Your task to perform on an android device: toggle translation in the chrome app Image 0: 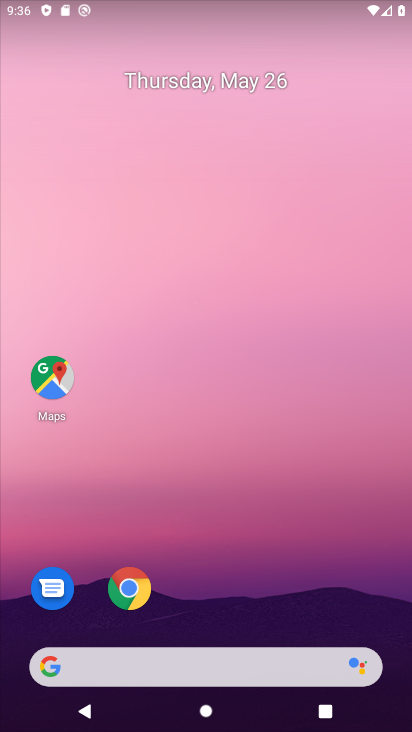
Step 0: drag from (239, 728) to (227, 189)
Your task to perform on an android device: toggle translation in the chrome app Image 1: 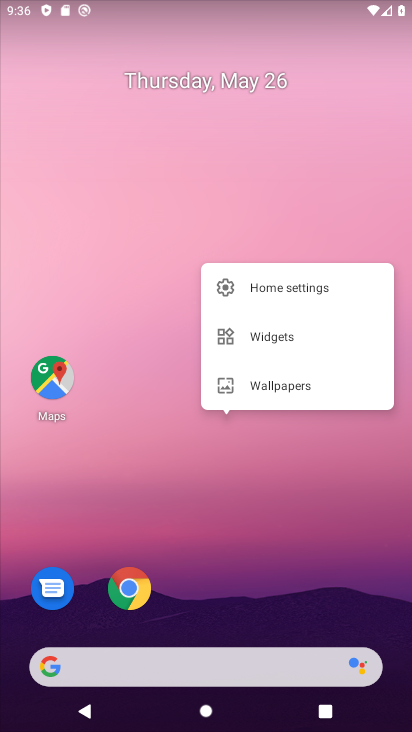
Step 1: click (233, 493)
Your task to perform on an android device: toggle translation in the chrome app Image 2: 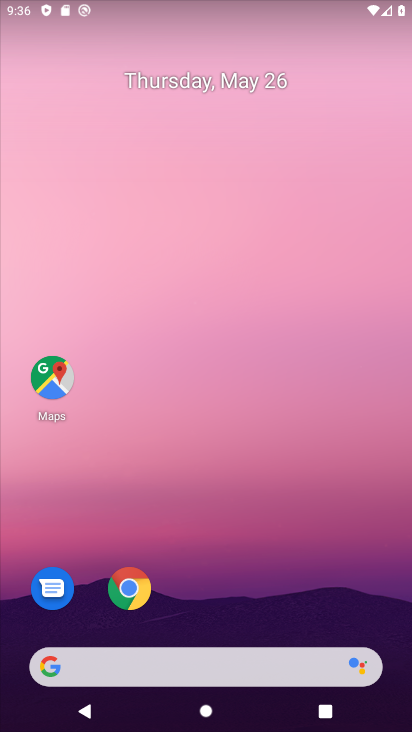
Step 2: click (129, 591)
Your task to perform on an android device: toggle translation in the chrome app Image 3: 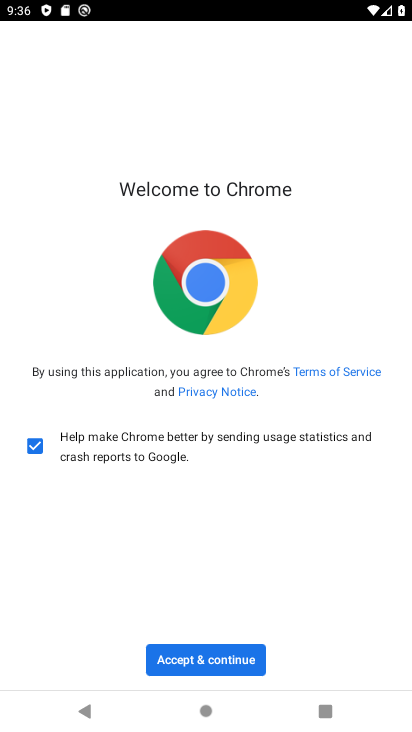
Step 3: click (179, 656)
Your task to perform on an android device: toggle translation in the chrome app Image 4: 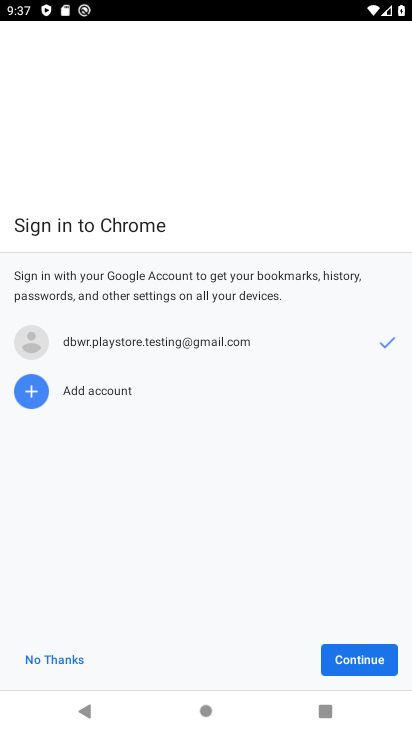
Step 4: click (368, 654)
Your task to perform on an android device: toggle translation in the chrome app Image 5: 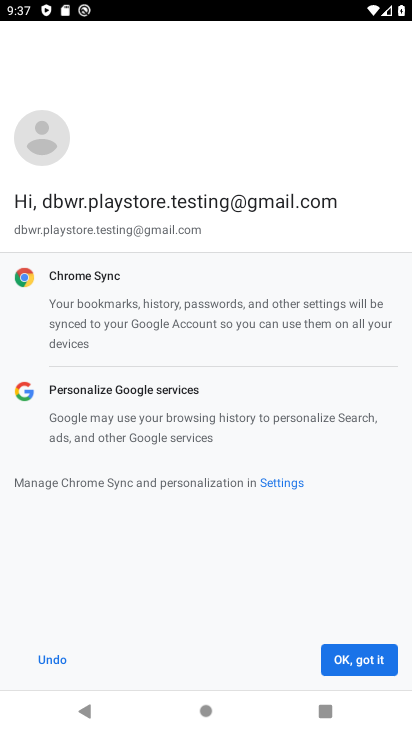
Step 5: click (338, 662)
Your task to perform on an android device: toggle translation in the chrome app Image 6: 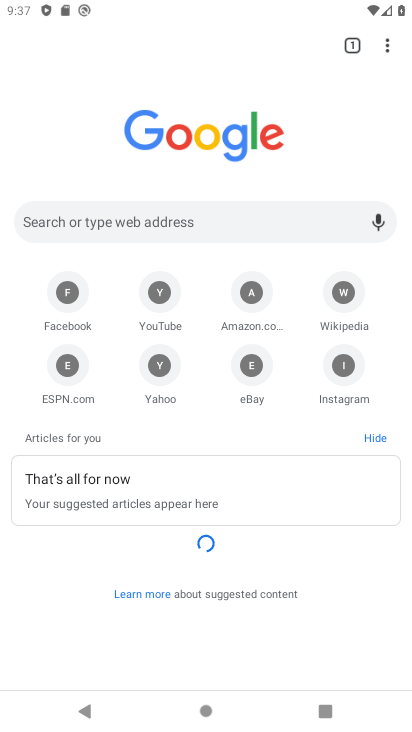
Step 6: click (388, 50)
Your task to perform on an android device: toggle translation in the chrome app Image 7: 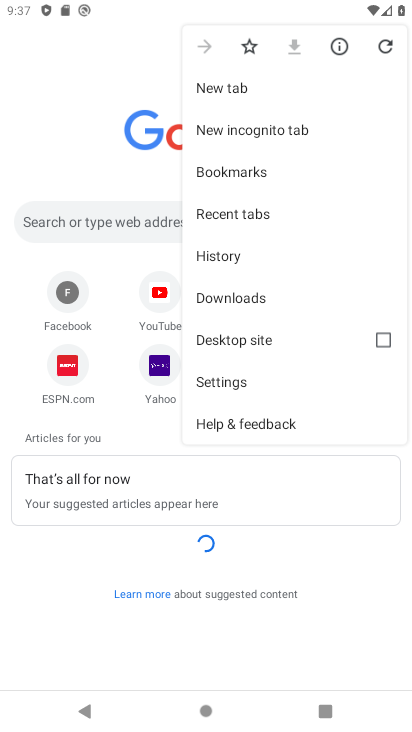
Step 7: click (226, 379)
Your task to perform on an android device: toggle translation in the chrome app Image 8: 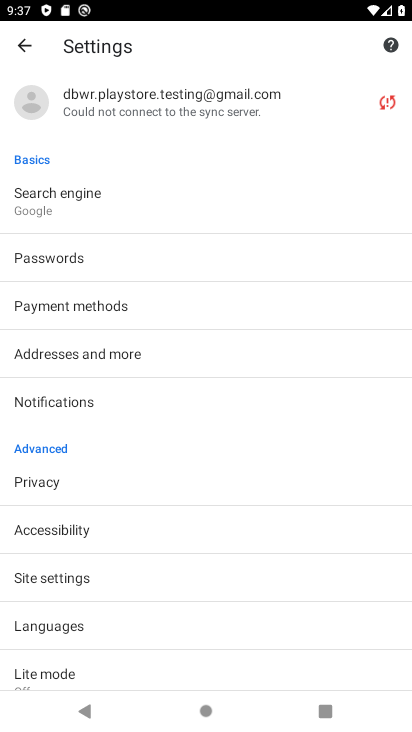
Step 8: click (43, 621)
Your task to perform on an android device: toggle translation in the chrome app Image 9: 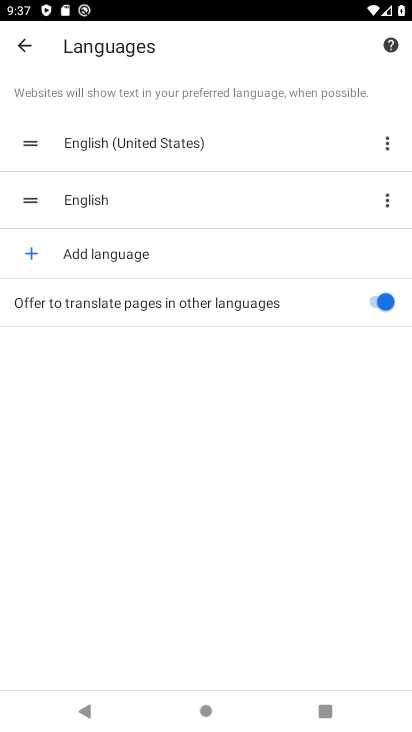
Step 9: click (376, 299)
Your task to perform on an android device: toggle translation in the chrome app Image 10: 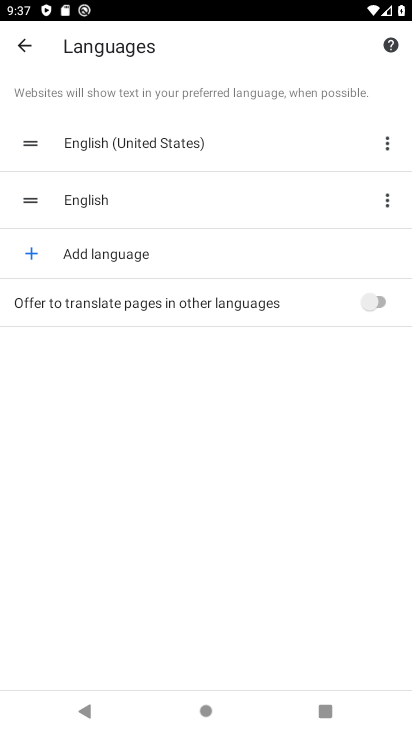
Step 10: task complete